Your task to perform on an android device: open device folders in google photos Image 0: 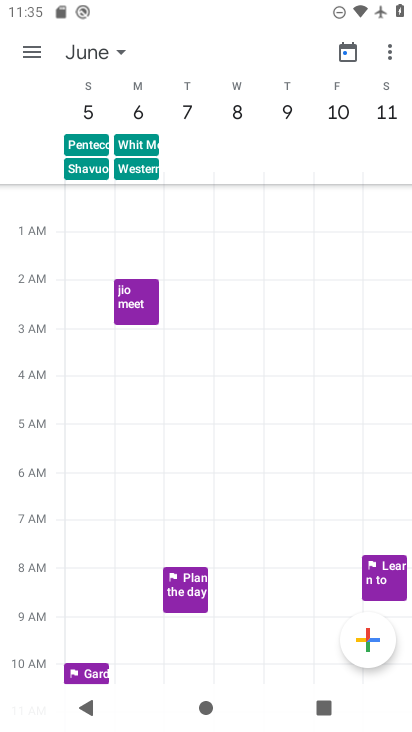
Step 0: press home button
Your task to perform on an android device: open device folders in google photos Image 1: 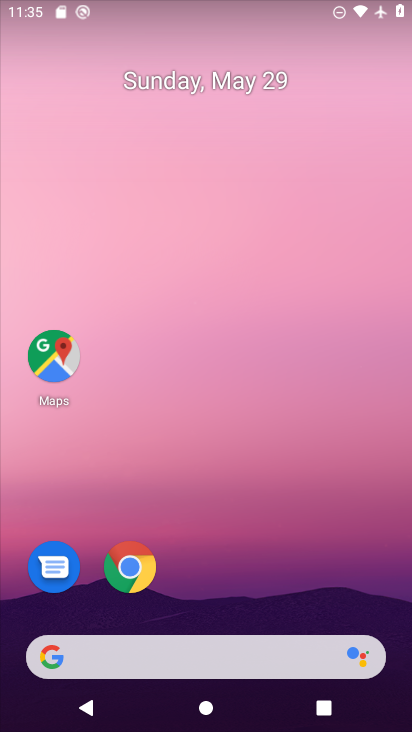
Step 1: drag from (400, 635) to (313, 0)
Your task to perform on an android device: open device folders in google photos Image 2: 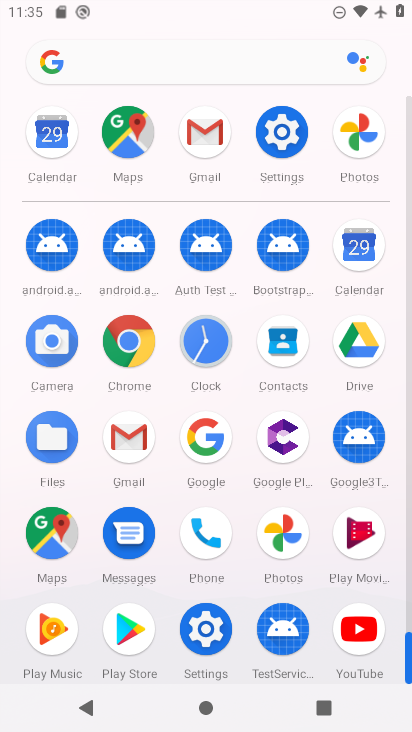
Step 2: click (406, 618)
Your task to perform on an android device: open device folders in google photos Image 3: 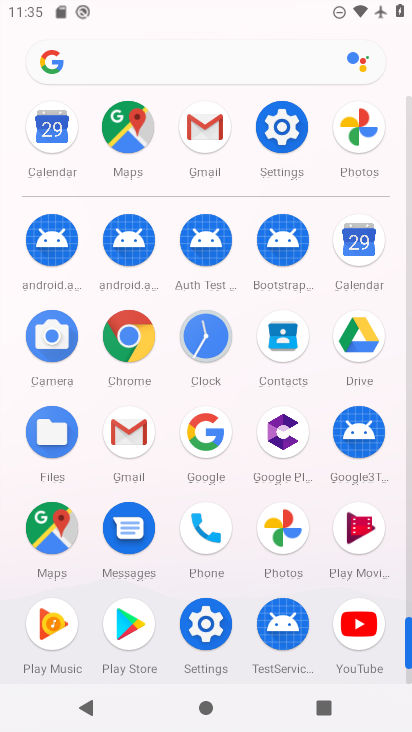
Step 3: click (285, 528)
Your task to perform on an android device: open device folders in google photos Image 4: 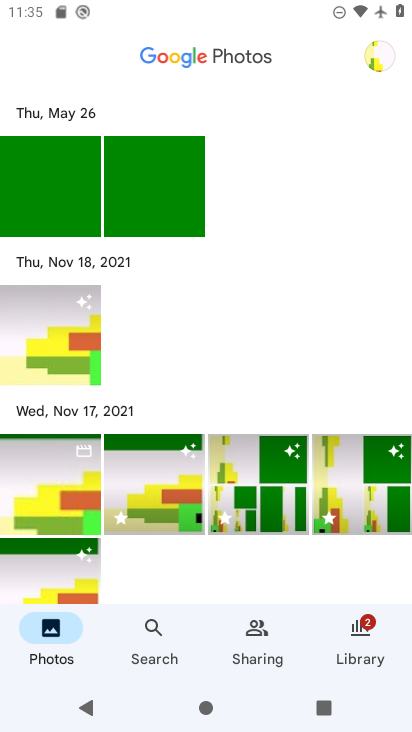
Step 4: task complete